Your task to perform on an android device: Go to notification settings Image 0: 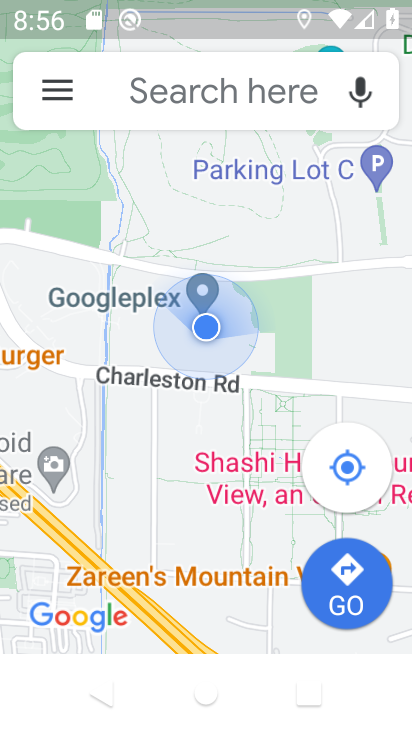
Step 0: press home button
Your task to perform on an android device: Go to notification settings Image 1: 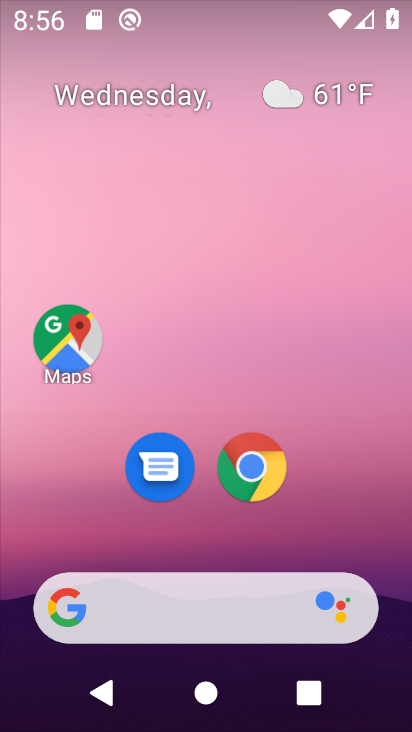
Step 1: drag from (317, 396) to (254, 31)
Your task to perform on an android device: Go to notification settings Image 2: 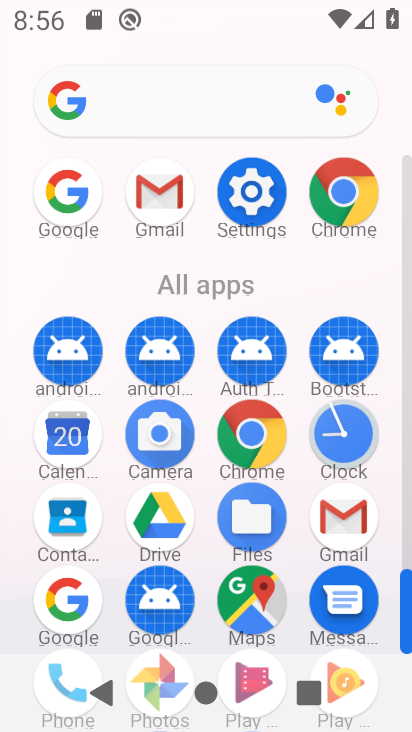
Step 2: click (250, 199)
Your task to perform on an android device: Go to notification settings Image 3: 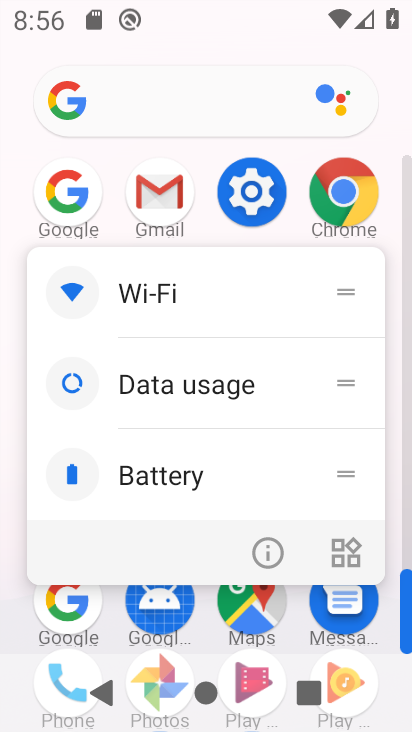
Step 3: click (250, 199)
Your task to perform on an android device: Go to notification settings Image 4: 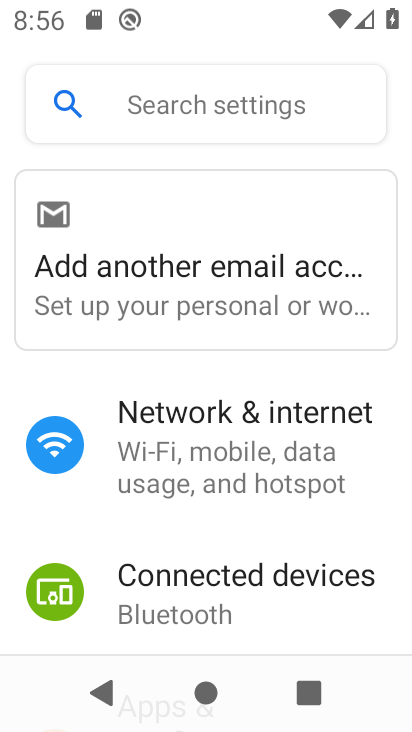
Step 4: drag from (284, 572) to (248, 234)
Your task to perform on an android device: Go to notification settings Image 5: 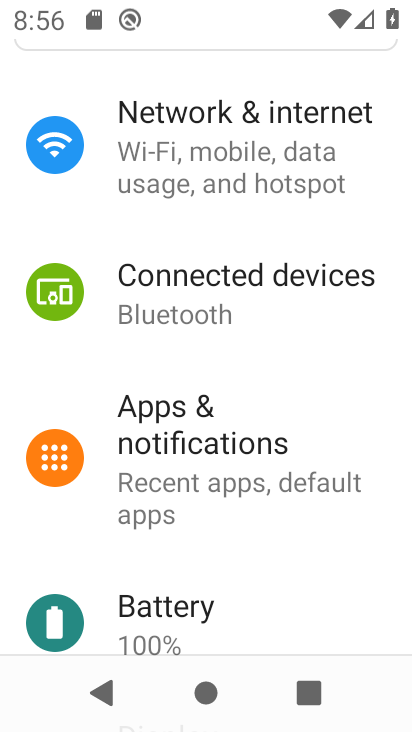
Step 5: click (298, 483)
Your task to perform on an android device: Go to notification settings Image 6: 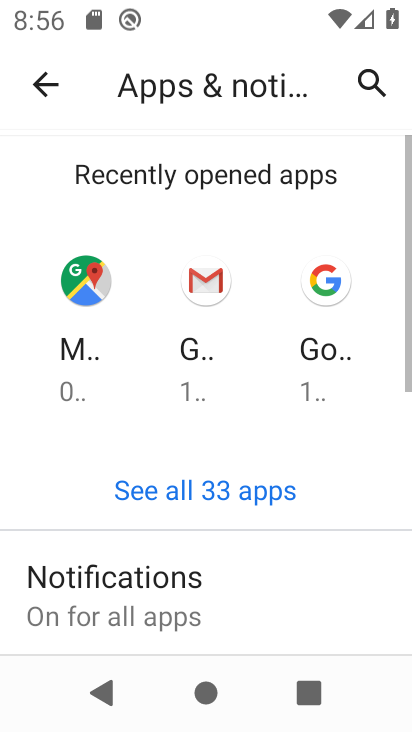
Step 6: drag from (261, 573) to (255, 229)
Your task to perform on an android device: Go to notification settings Image 7: 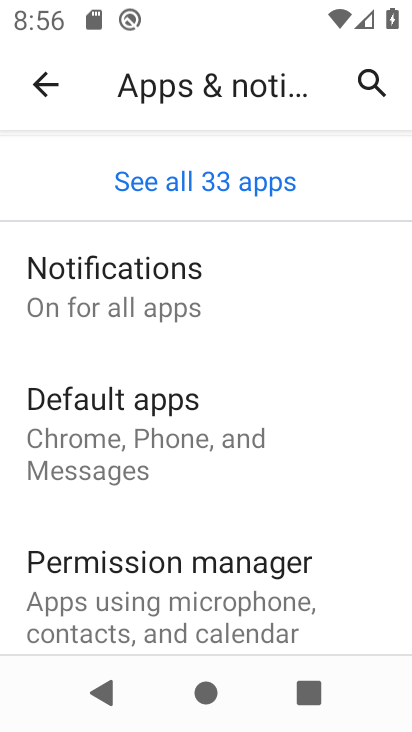
Step 7: click (176, 306)
Your task to perform on an android device: Go to notification settings Image 8: 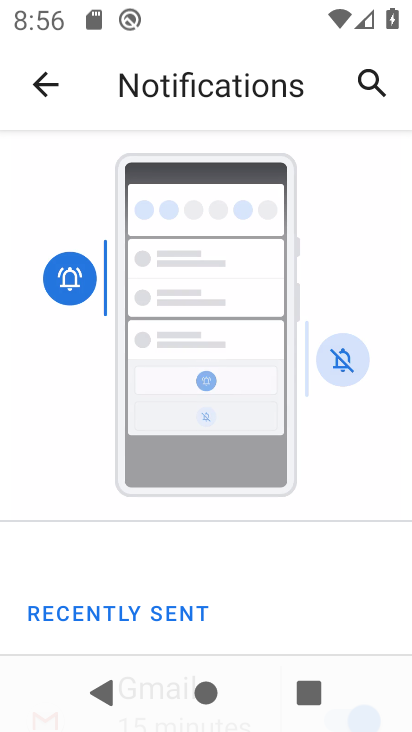
Step 8: task complete